Your task to perform on an android device: open app "Yahoo Mail" Image 0: 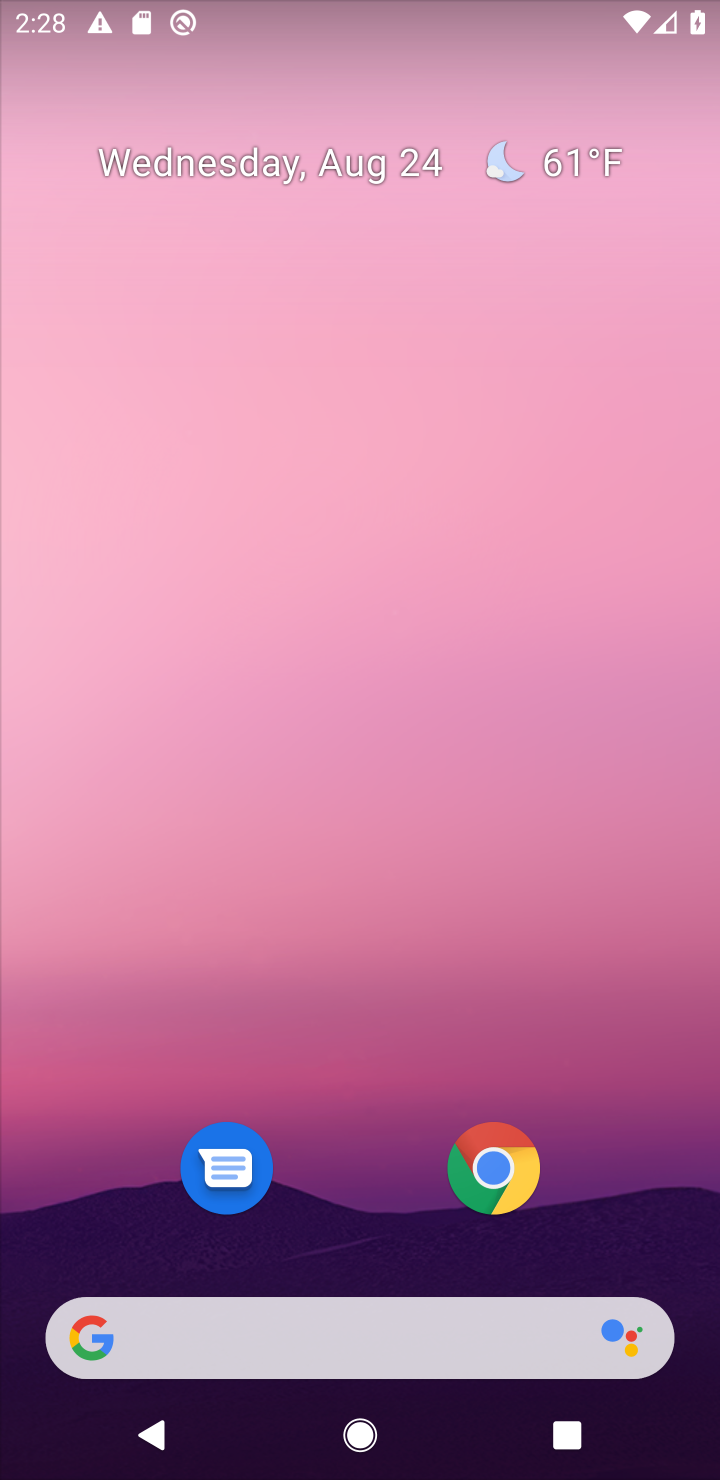
Step 0: drag from (617, 904) to (625, 0)
Your task to perform on an android device: open app "Yahoo Mail" Image 1: 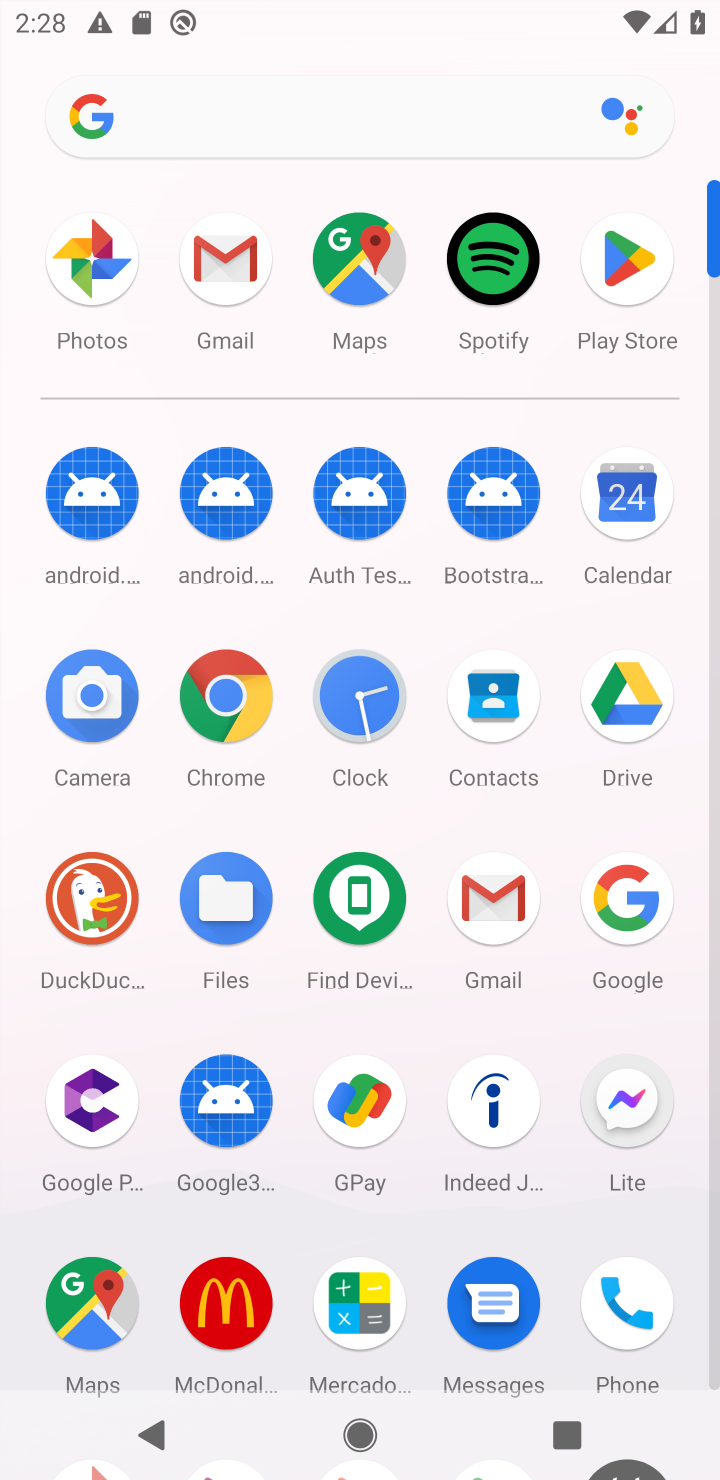
Step 1: click (716, 1349)
Your task to perform on an android device: open app "Yahoo Mail" Image 2: 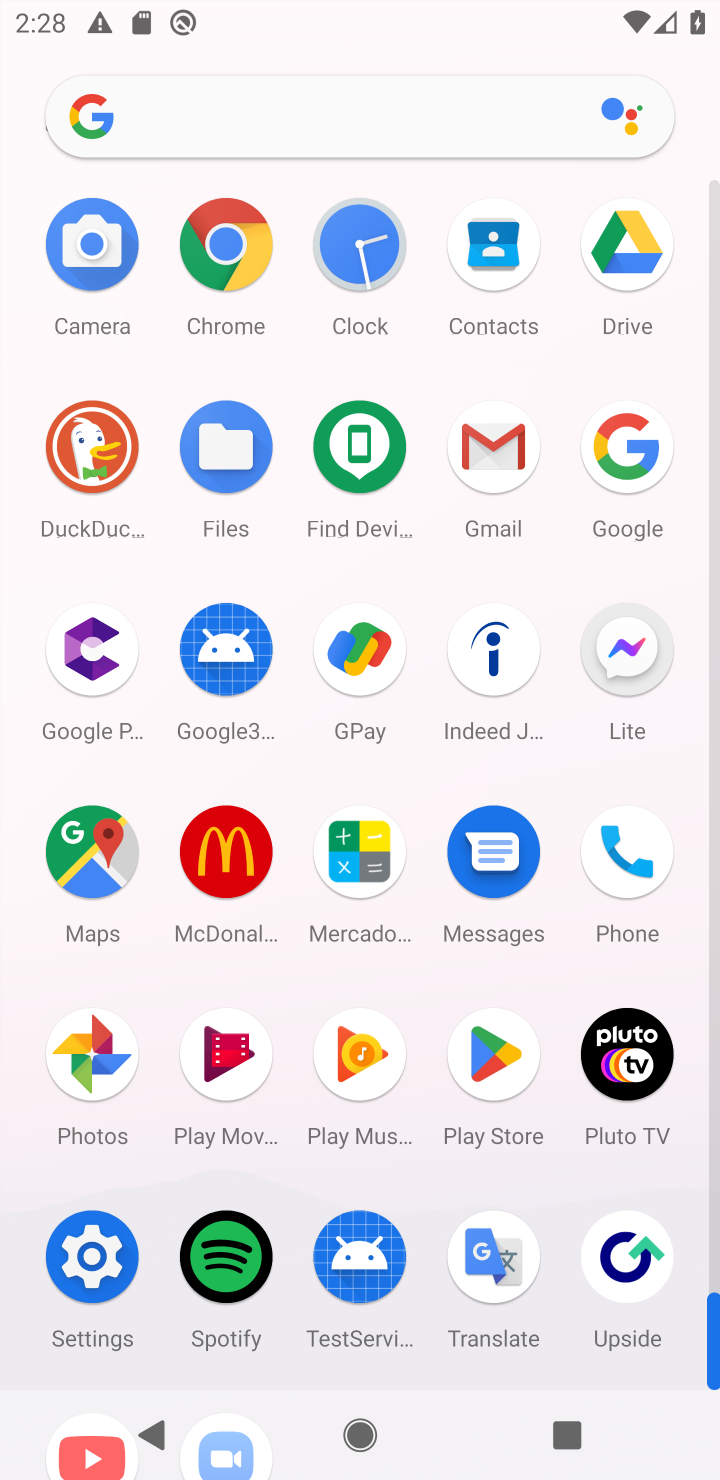
Step 2: click (495, 1054)
Your task to perform on an android device: open app "Yahoo Mail" Image 3: 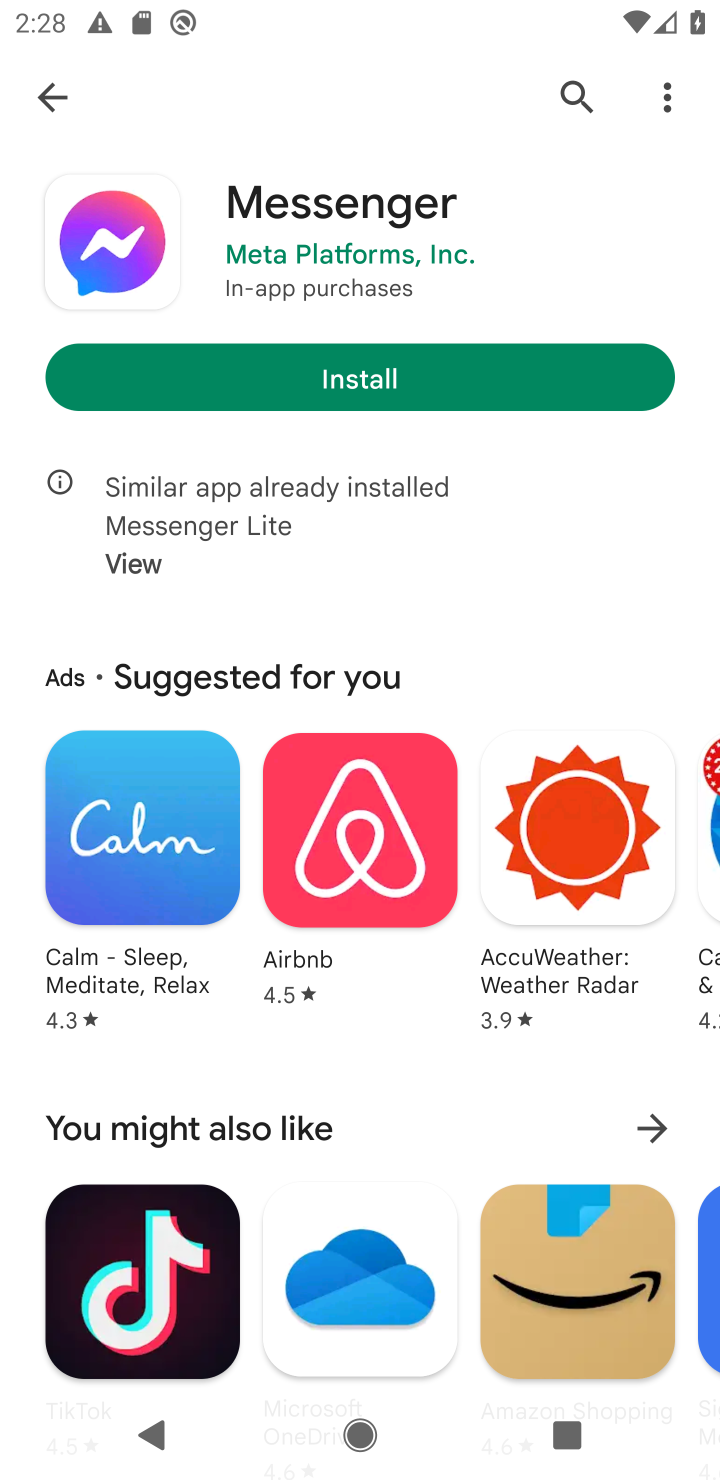
Step 3: click (567, 86)
Your task to perform on an android device: open app "Yahoo Mail" Image 4: 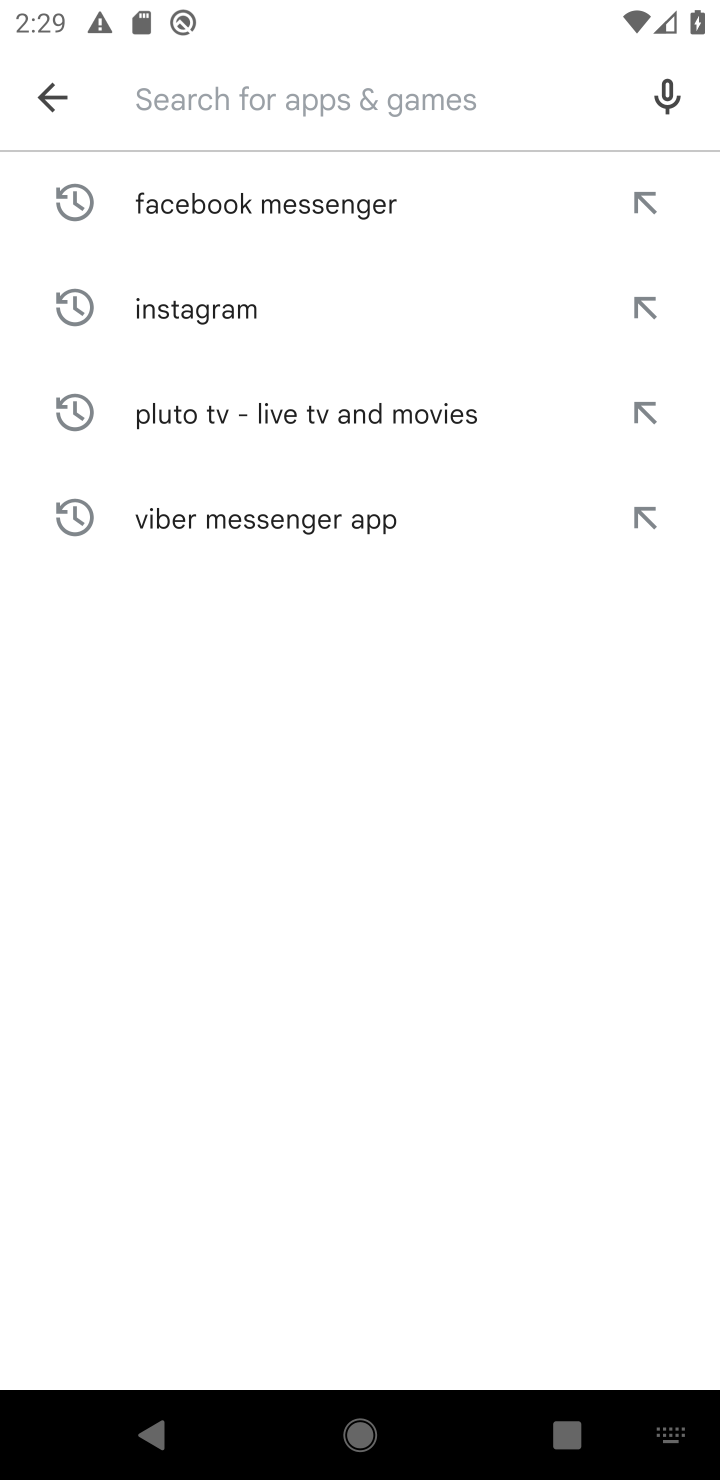
Step 4: type "Yahoo Mail"
Your task to perform on an android device: open app "Yahoo Mail" Image 5: 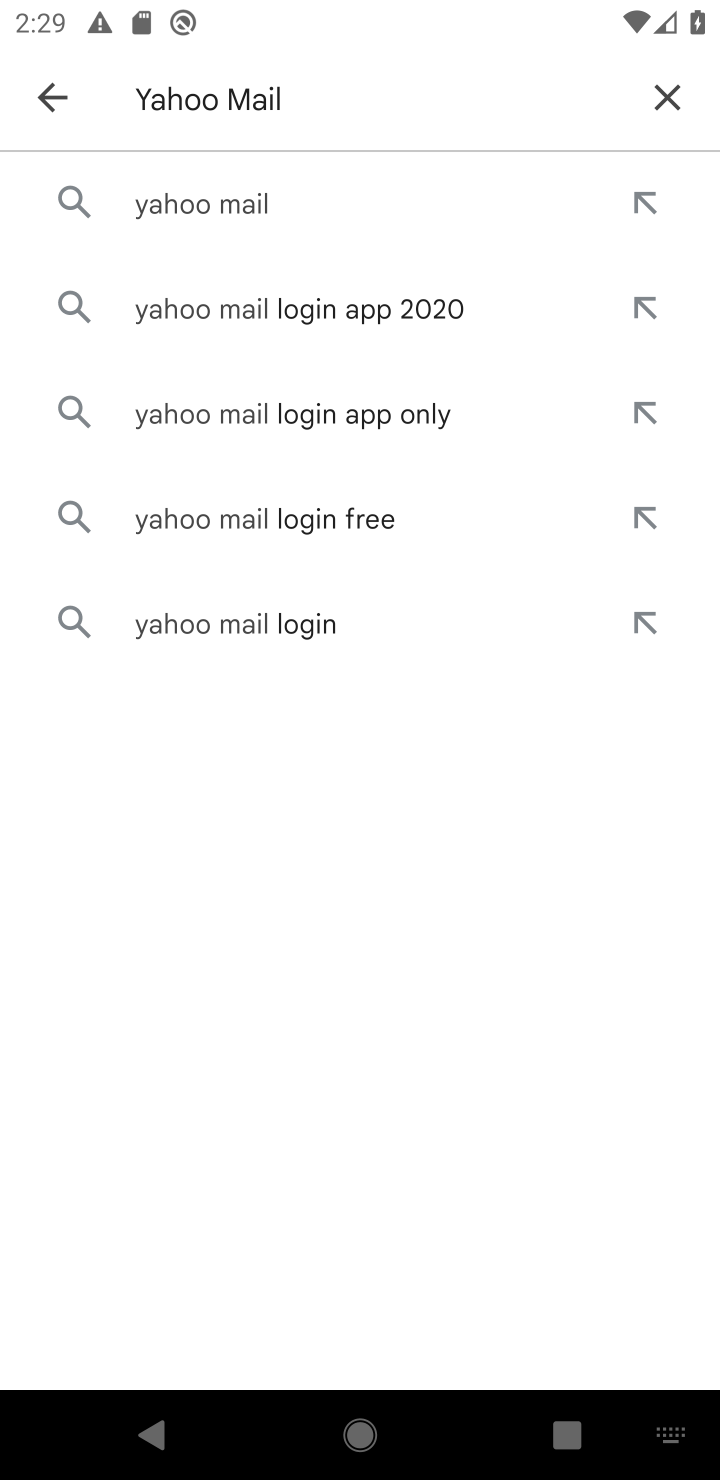
Step 5: click (231, 210)
Your task to perform on an android device: open app "Yahoo Mail" Image 6: 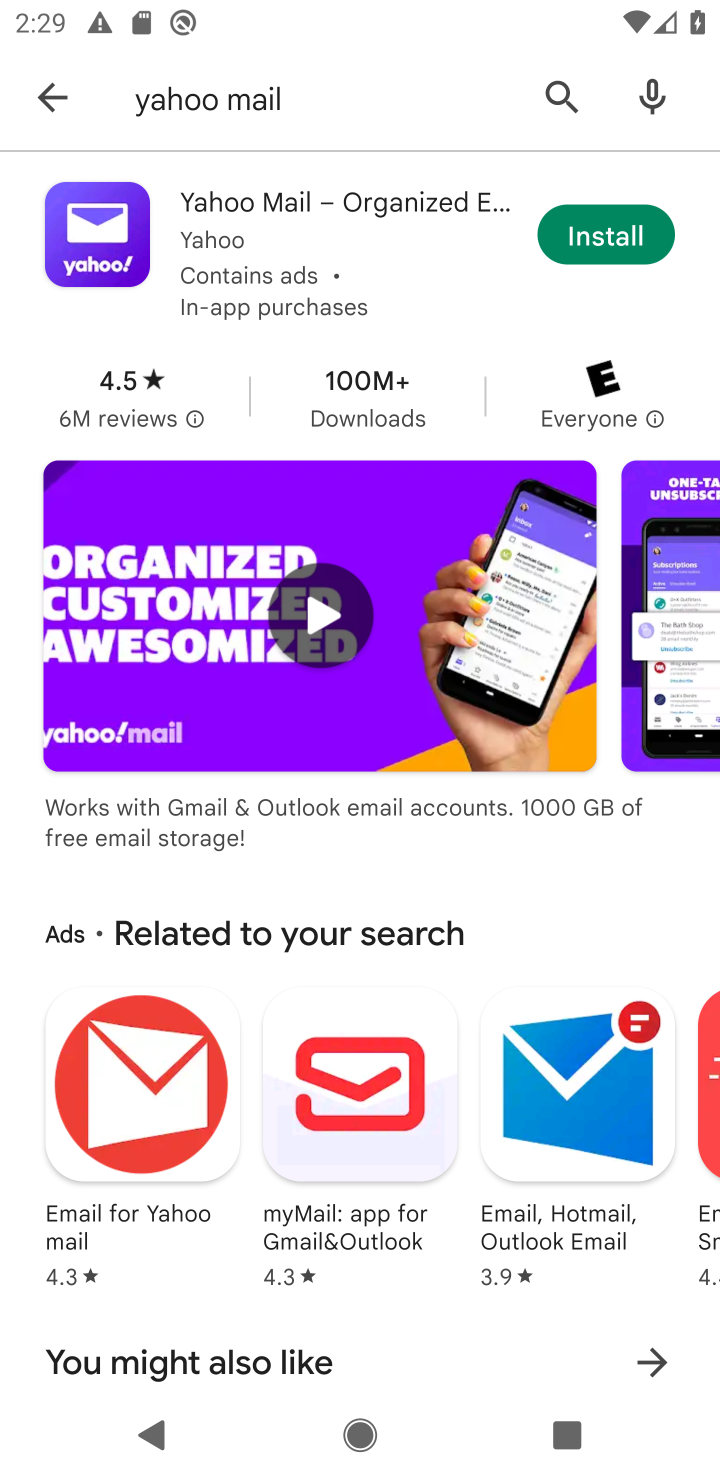
Step 6: click (238, 211)
Your task to perform on an android device: open app "Yahoo Mail" Image 7: 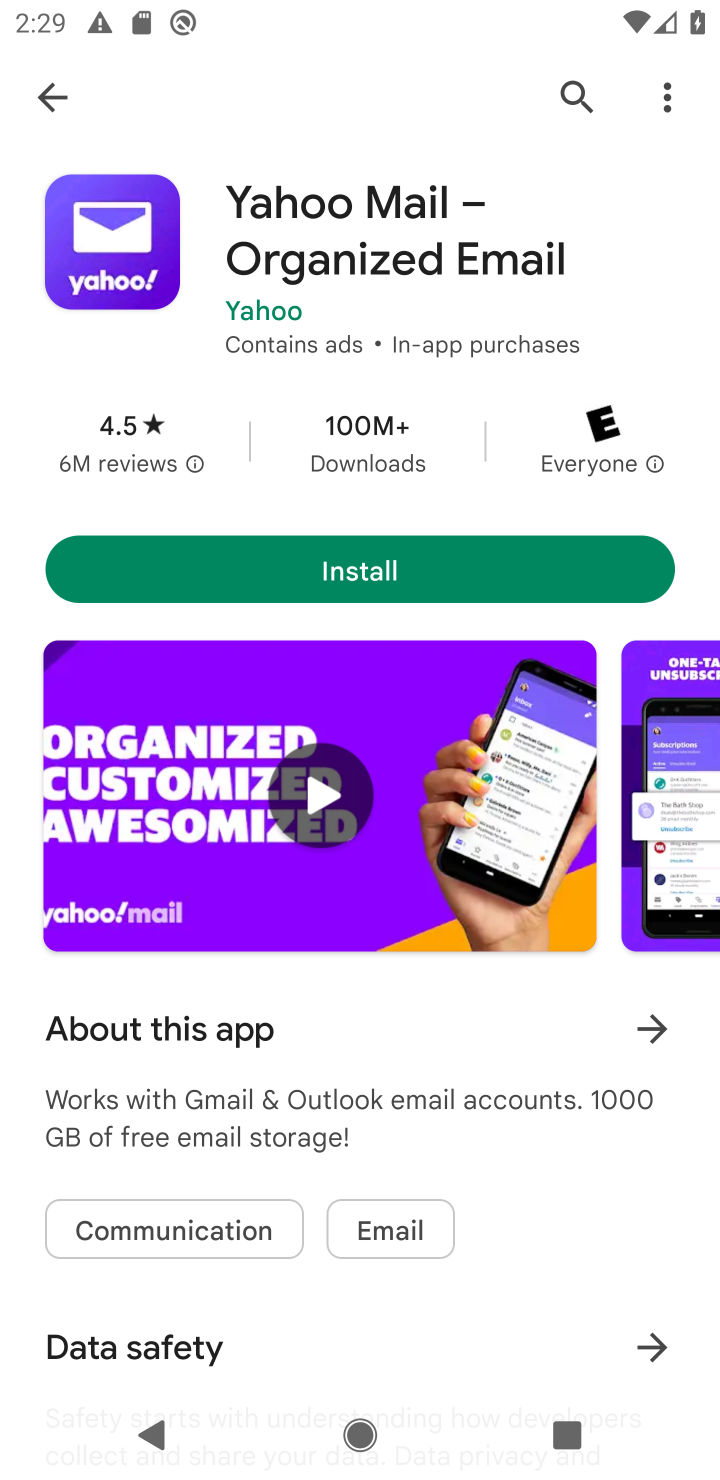
Step 7: task complete